Your task to perform on an android device: Open sound settings Image 0: 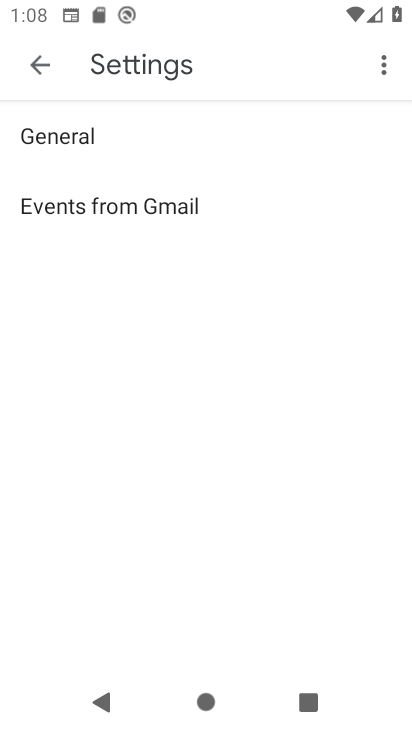
Step 0: press home button
Your task to perform on an android device: Open sound settings Image 1: 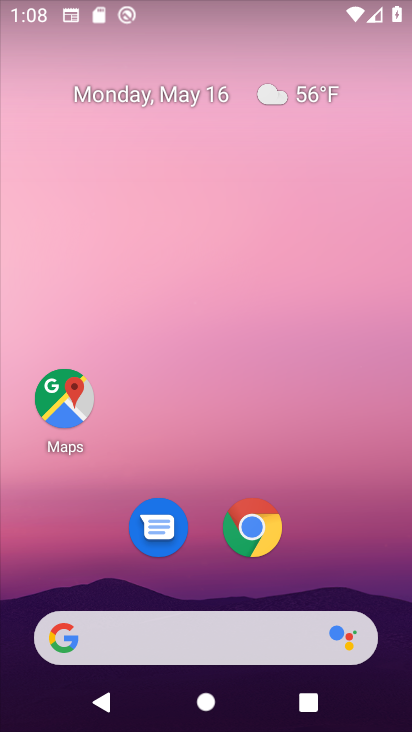
Step 1: drag from (227, 620) to (120, 19)
Your task to perform on an android device: Open sound settings Image 2: 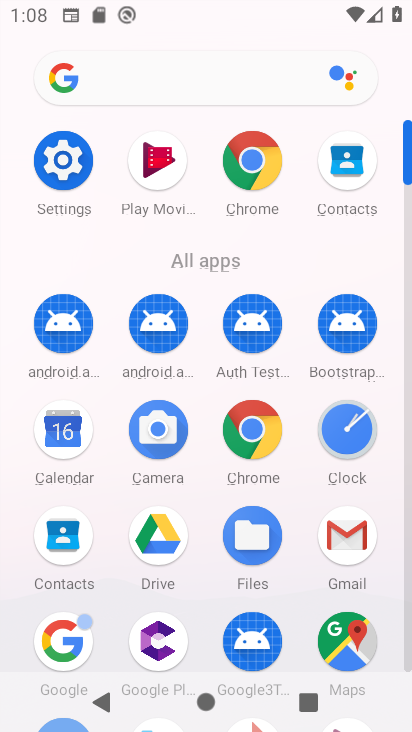
Step 2: click (82, 173)
Your task to perform on an android device: Open sound settings Image 3: 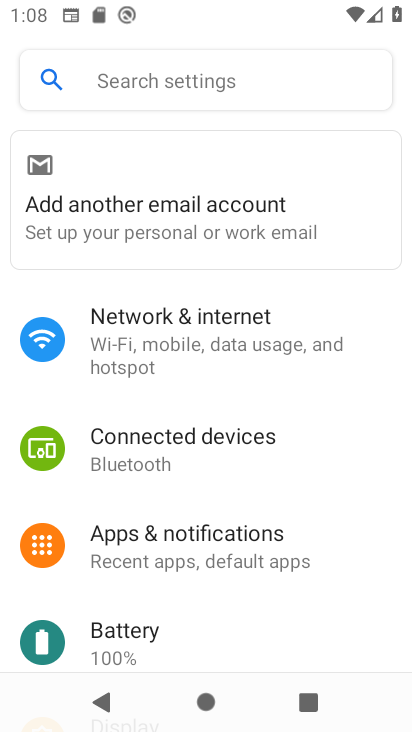
Step 3: drag from (163, 541) to (114, 2)
Your task to perform on an android device: Open sound settings Image 4: 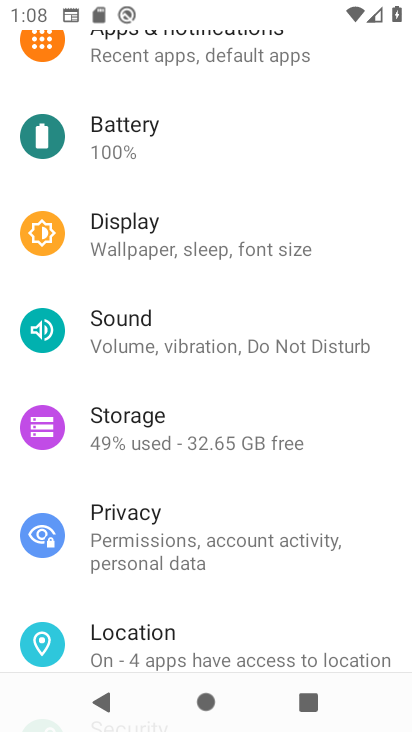
Step 4: click (139, 351)
Your task to perform on an android device: Open sound settings Image 5: 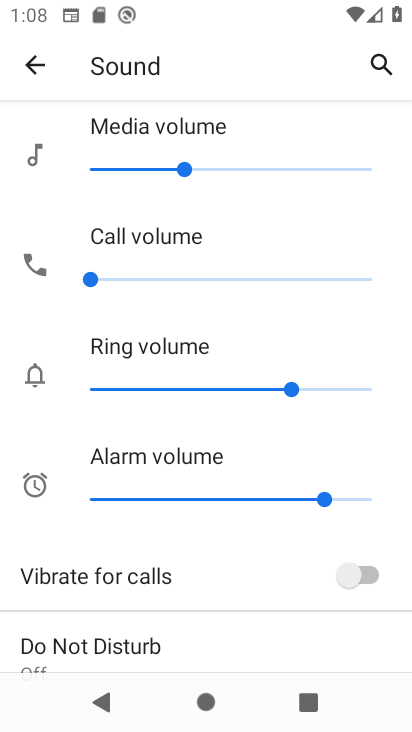
Step 5: task complete